Your task to perform on an android device: Open Google Chrome and click the shortcut for Amazon.com Image 0: 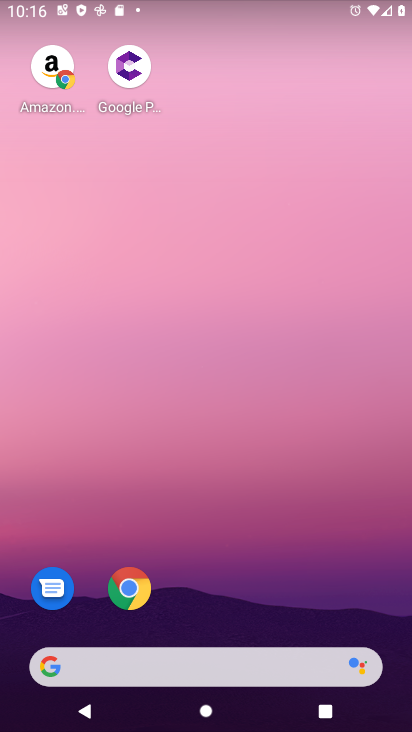
Step 0: drag from (255, 555) to (29, 121)
Your task to perform on an android device: Open Google Chrome and click the shortcut for Amazon.com Image 1: 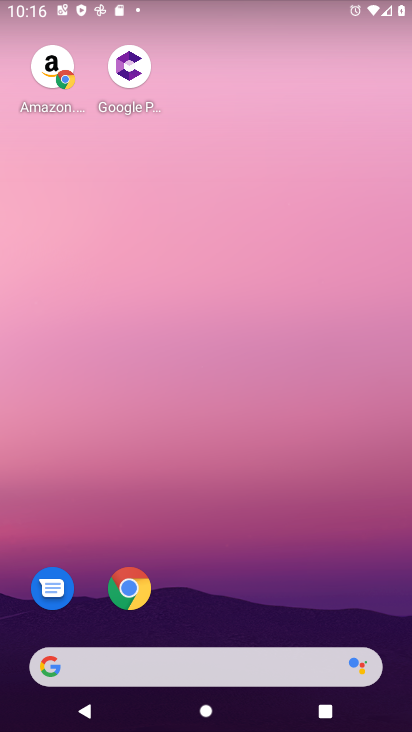
Step 1: drag from (290, 633) to (251, 188)
Your task to perform on an android device: Open Google Chrome and click the shortcut for Amazon.com Image 2: 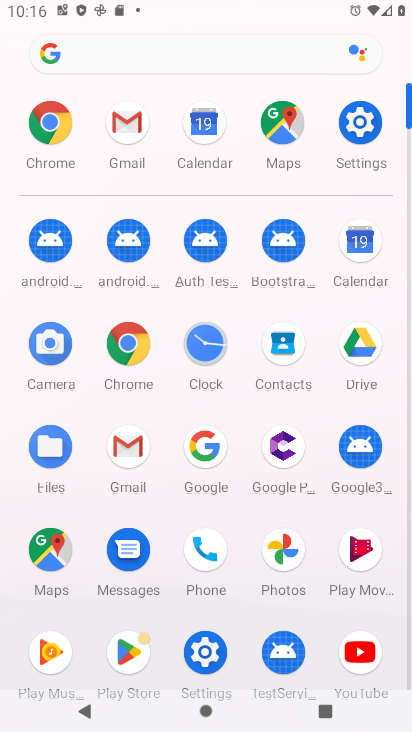
Step 2: click (118, 350)
Your task to perform on an android device: Open Google Chrome and click the shortcut for Amazon.com Image 3: 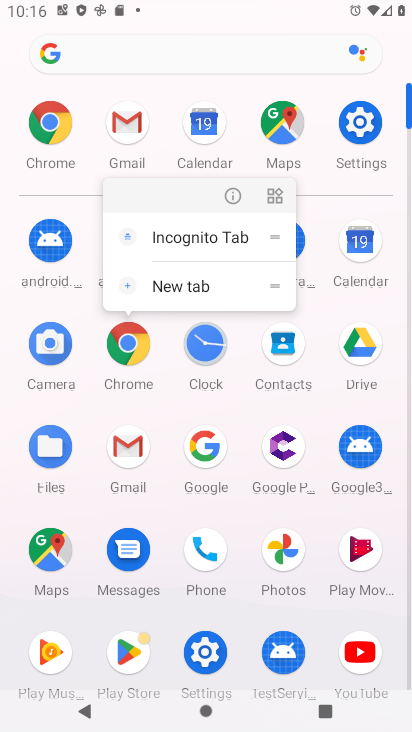
Step 3: click (117, 349)
Your task to perform on an android device: Open Google Chrome and click the shortcut for Amazon.com Image 4: 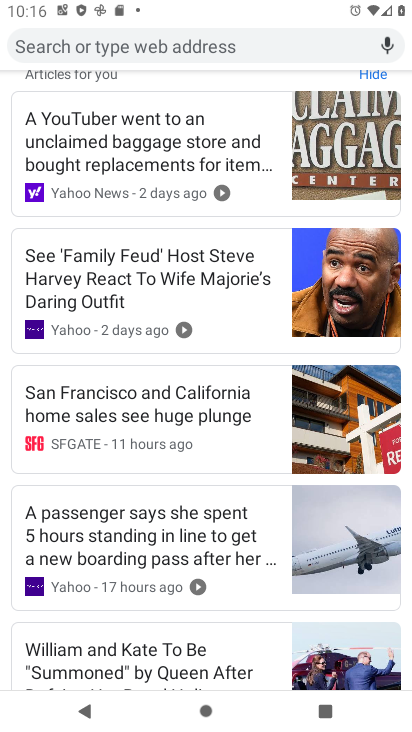
Step 4: drag from (109, 201) to (249, 657)
Your task to perform on an android device: Open Google Chrome and click the shortcut for Amazon.com Image 5: 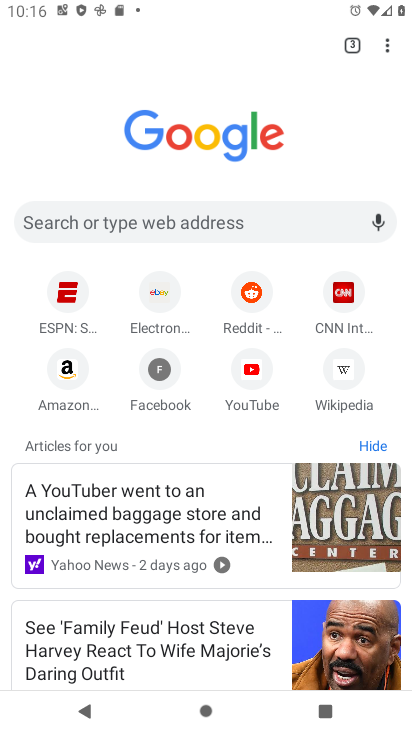
Step 5: click (59, 369)
Your task to perform on an android device: Open Google Chrome and click the shortcut for Amazon.com Image 6: 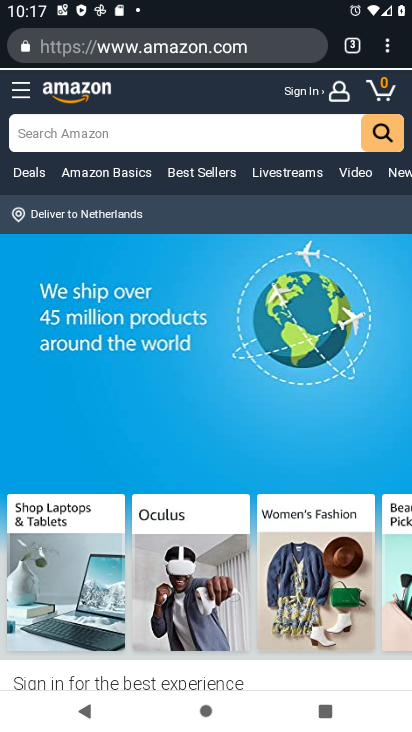
Step 6: drag from (395, 59) to (294, 459)
Your task to perform on an android device: Open Google Chrome and click the shortcut for Amazon.com Image 7: 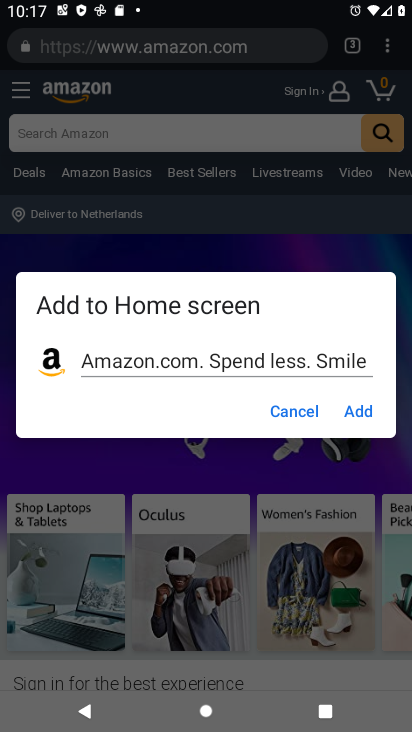
Step 7: click (344, 419)
Your task to perform on an android device: Open Google Chrome and click the shortcut for Amazon.com Image 8: 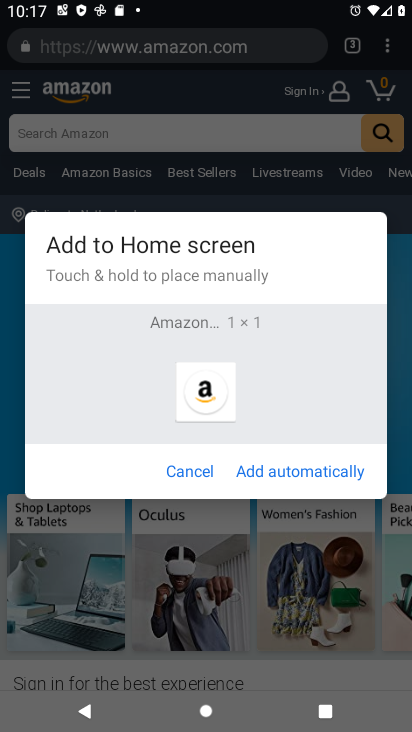
Step 8: click (343, 471)
Your task to perform on an android device: Open Google Chrome and click the shortcut for Amazon.com Image 9: 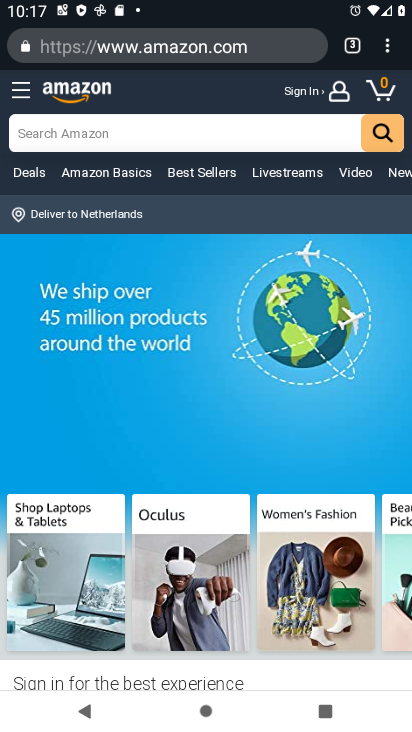
Step 9: task complete